Your task to perform on an android device: check android version Image 0: 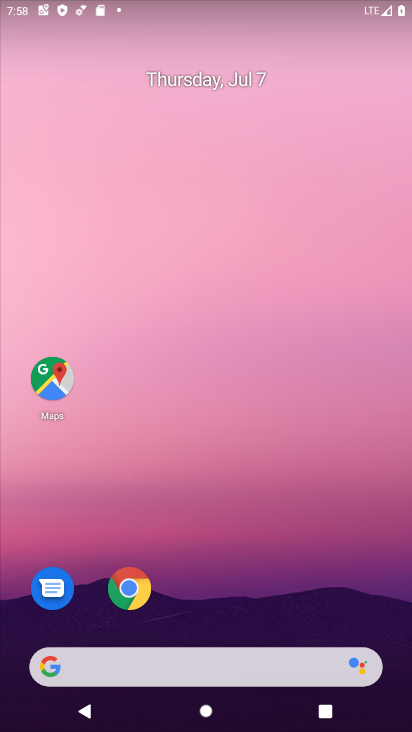
Step 0: drag from (285, 597) to (247, 151)
Your task to perform on an android device: check android version Image 1: 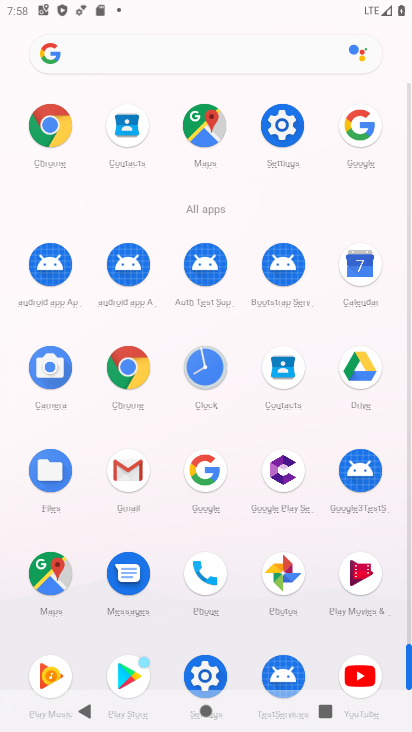
Step 1: click (280, 123)
Your task to perform on an android device: check android version Image 2: 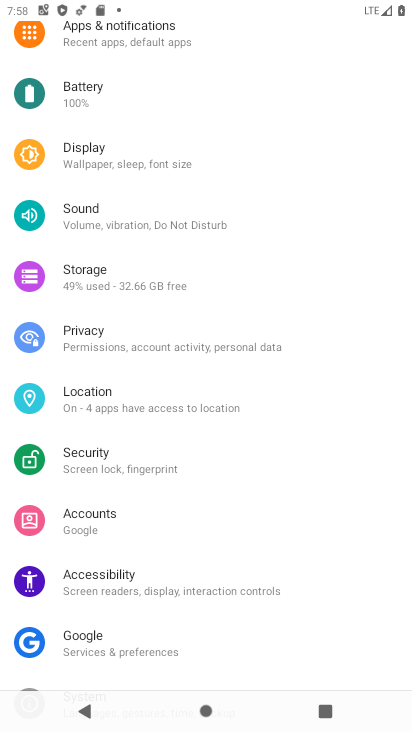
Step 2: drag from (220, 96) to (350, 75)
Your task to perform on an android device: check android version Image 3: 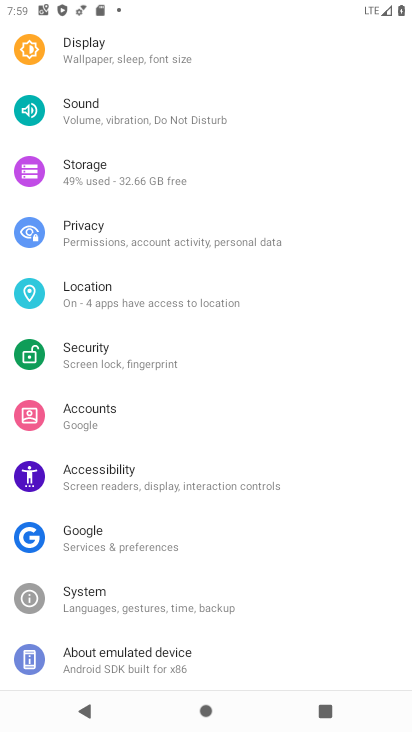
Step 3: click (152, 651)
Your task to perform on an android device: check android version Image 4: 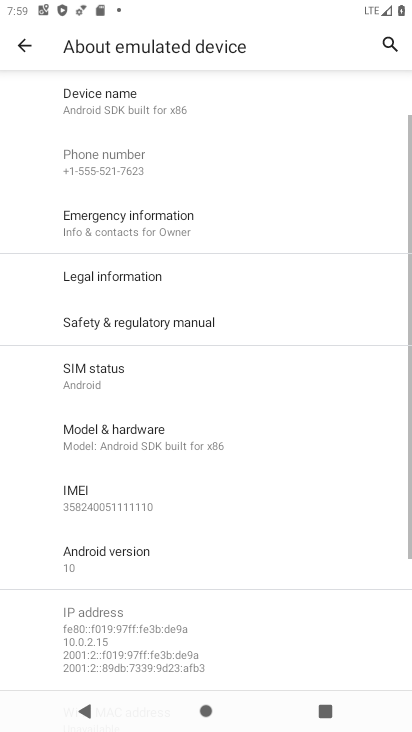
Step 4: click (95, 564)
Your task to perform on an android device: check android version Image 5: 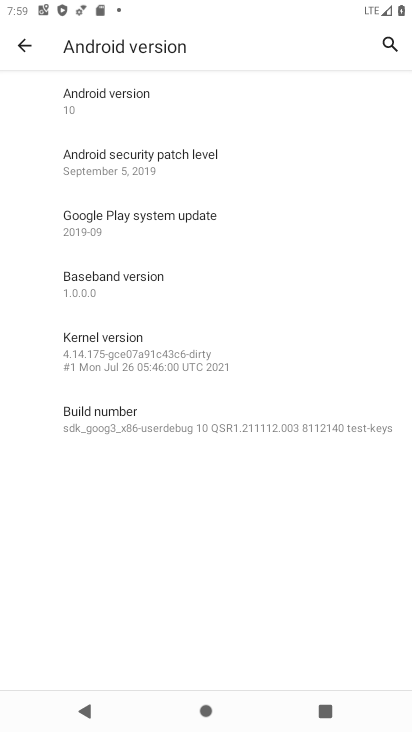
Step 5: click (116, 106)
Your task to perform on an android device: check android version Image 6: 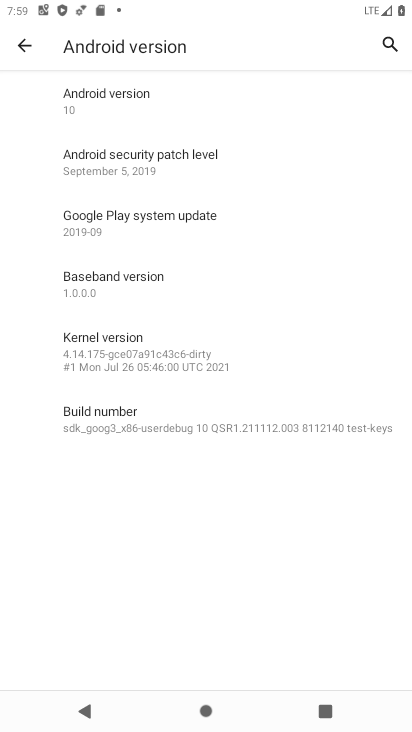
Step 6: task complete